Your task to perform on an android device: Is it going to rain tomorrow? Image 0: 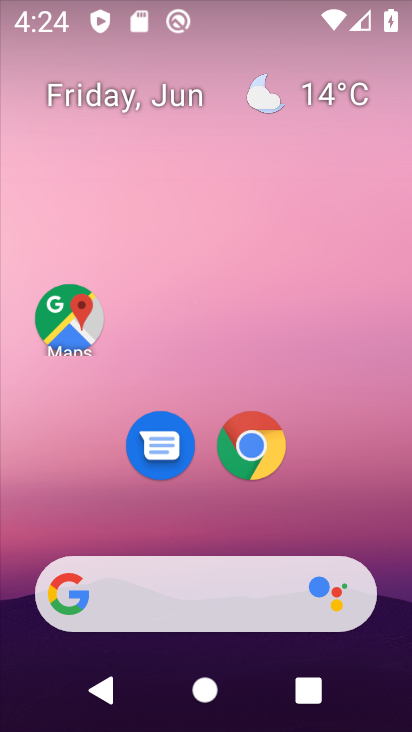
Step 0: click (253, 596)
Your task to perform on an android device: Is it going to rain tomorrow? Image 1: 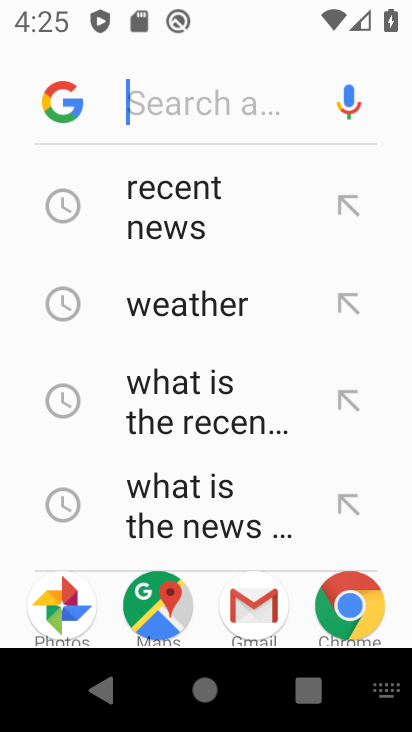
Step 1: type "Is it going to rain tomorrow?"
Your task to perform on an android device: Is it going to rain tomorrow? Image 2: 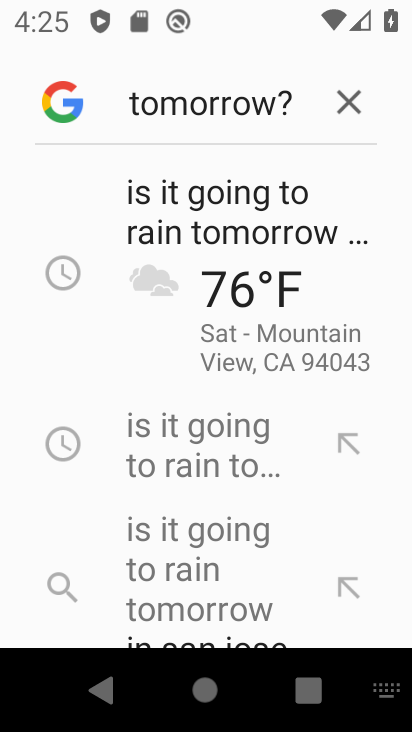
Step 2: click (260, 232)
Your task to perform on an android device: Is it going to rain tomorrow? Image 3: 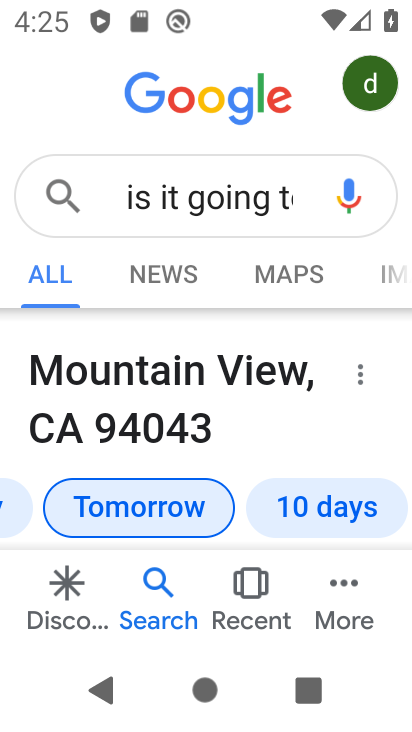
Step 3: task complete